Your task to perform on an android device: delete browsing data in the chrome app Image 0: 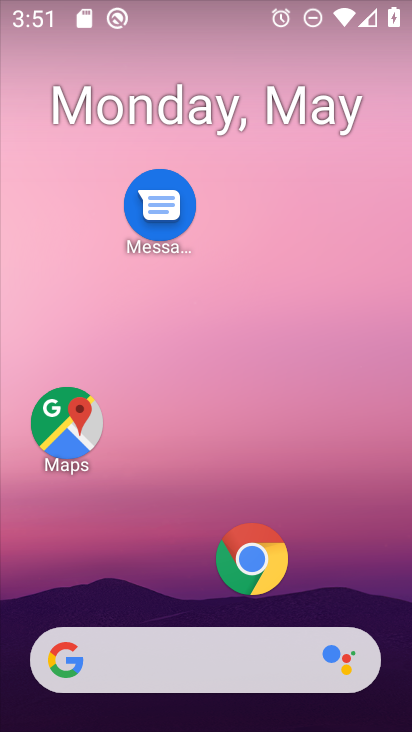
Step 0: drag from (197, 583) to (283, 73)
Your task to perform on an android device: delete browsing data in the chrome app Image 1: 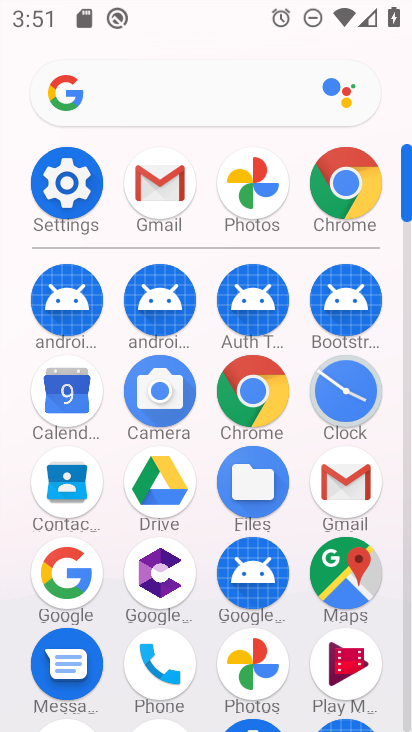
Step 1: drag from (207, 711) to (212, 270)
Your task to perform on an android device: delete browsing data in the chrome app Image 2: 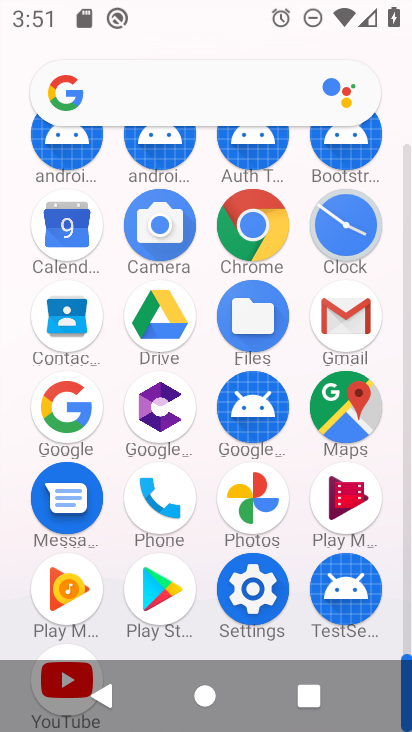
Step 2: click (259, 213)
Your task to perform on an android device: delete browsing data in the chrome app Image 3: 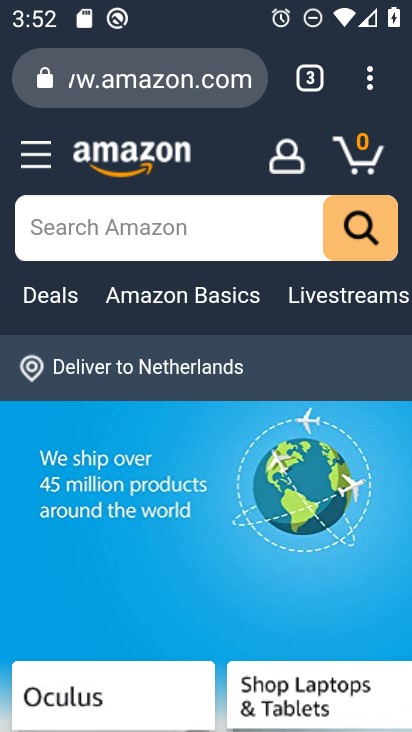
Step 3: drag from (242, 599) to (245, 323)
Your task to perform on an android device: delete browsing data in the chrome app Image 4: 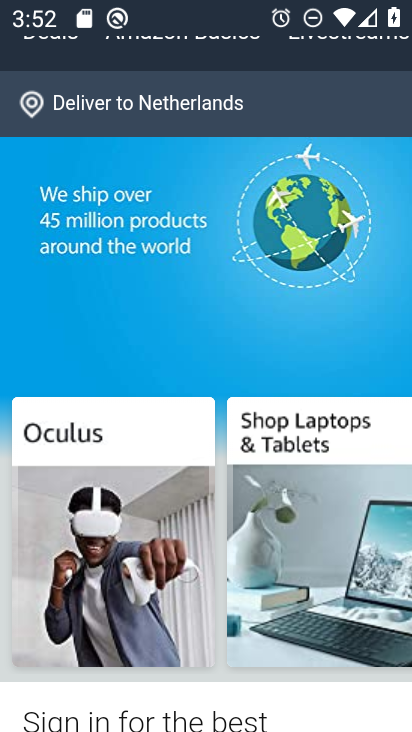
Step 4: drag from (253, 629) to (311, 284)
Your task to perform on an android device: delete browsing data in the chrome app Image 5: 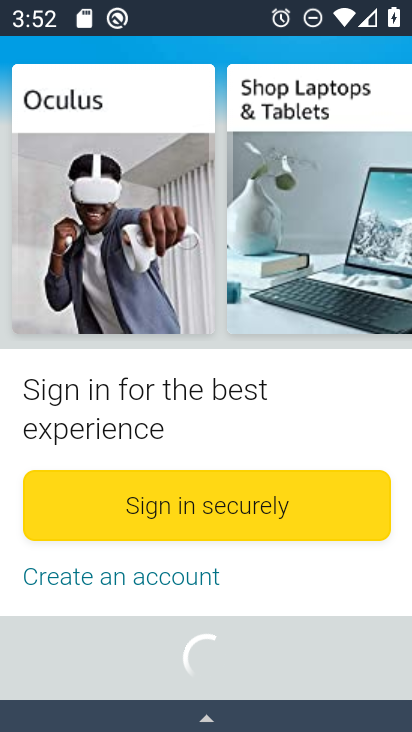
Step 5: drag from (235, 621) to (252, 178)
Your task to perform on an android device: delete browsing data in the chrome app Image 6: 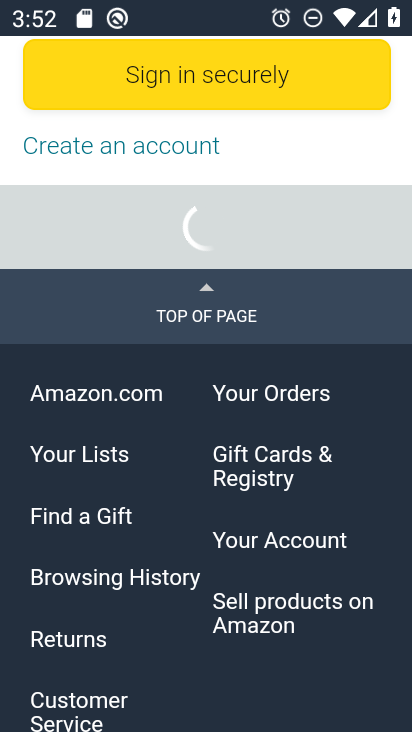
Step 6: drag from (333, 175) to (324, 689)
Your task to perform on an android device: delete browsing data in the chrome app Image 7: 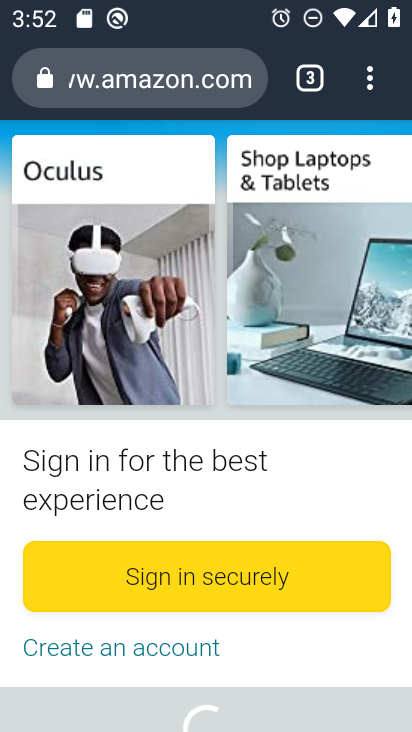
Step 7: drag from (269, 116) to (289, 654)
Your task to perform on an android device: delete browsing data in the chrome app Image 8: 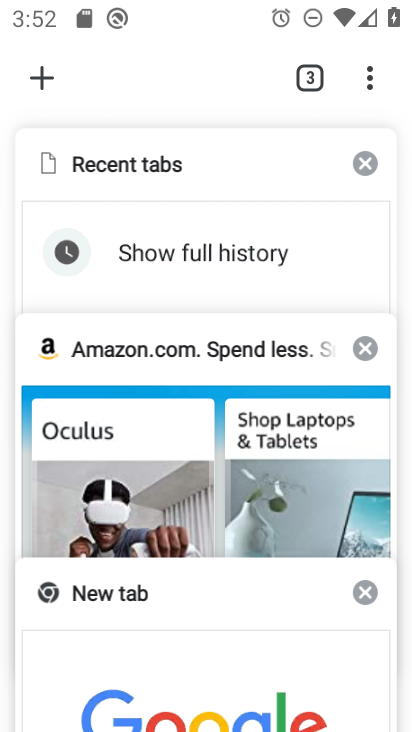
Step 8: drag from (359, 123) to (295, 393)
Your task to perform on an android device: delete browsing data in the chrome app Image 9: 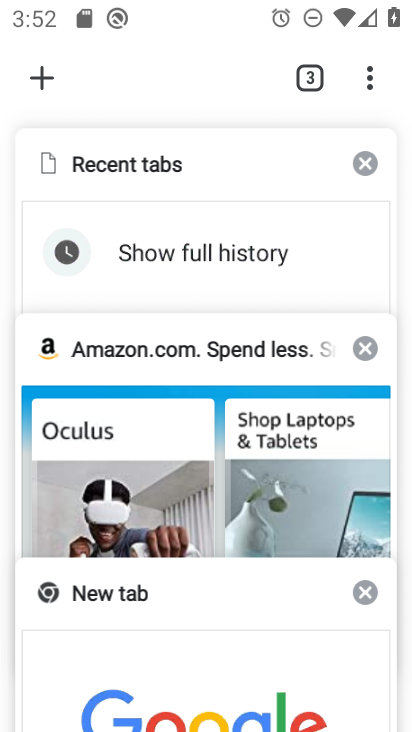
Step 9: click (242, 488)
Your task to perform on an android device: delete browsing data in the chrome app Image 10: 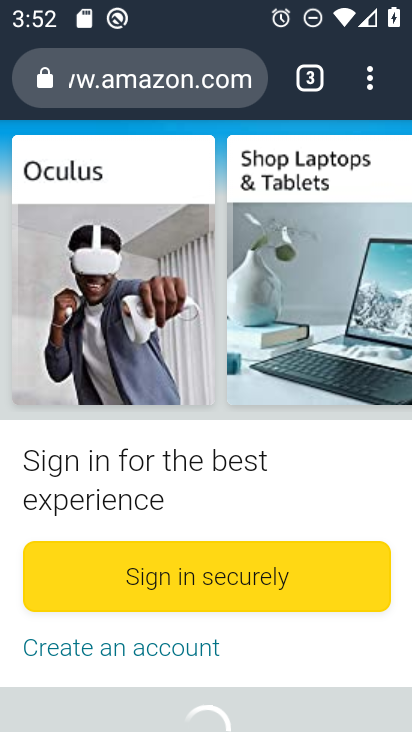
Step 10: click (366, 82)
Your task to perform on an android device: delete browsing data in the chrome app Image 11: 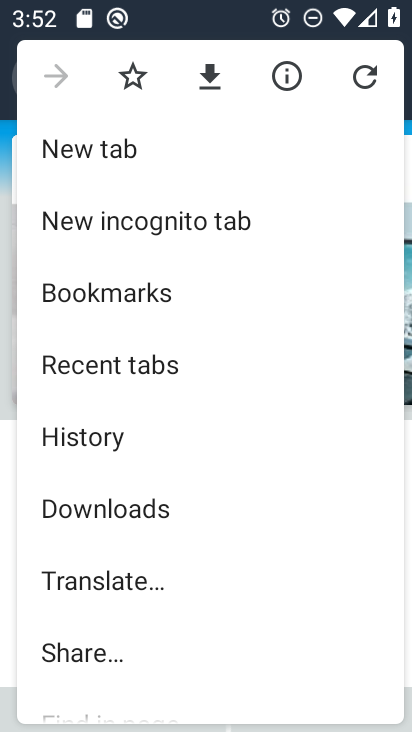
Step 11: click (111, 438)
Your task to perform on an android device: delete browsing data in the chrome app Image 12: 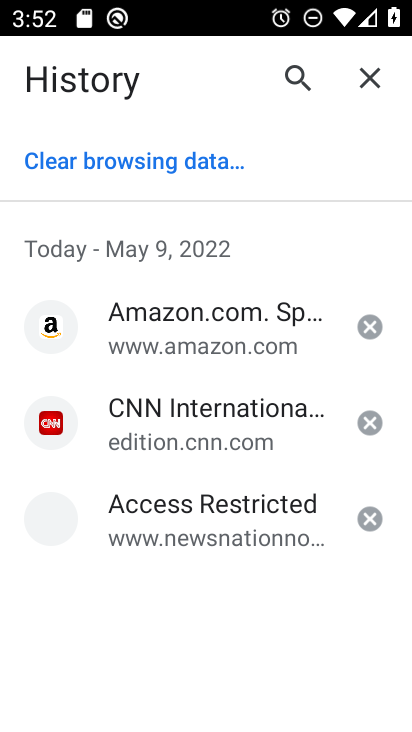
Step 12: drag from (198, 586) to (280, 285)
Your task to perform on an android device: delete browsing data in the chrome app Image 13: 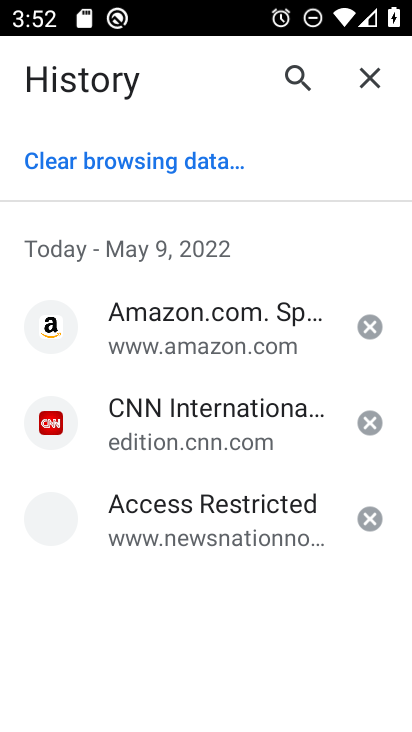
Step 13: click (122, 163)
Your task to perform on an android device: delete browsing data in the chrome app Image 14: 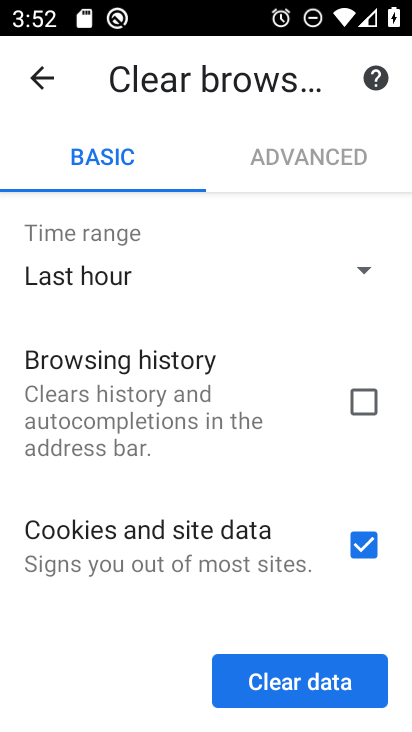
Step 14: click (367, 388)
Your task to perform on an android device: delete browsing data in the chrome app Image 15: 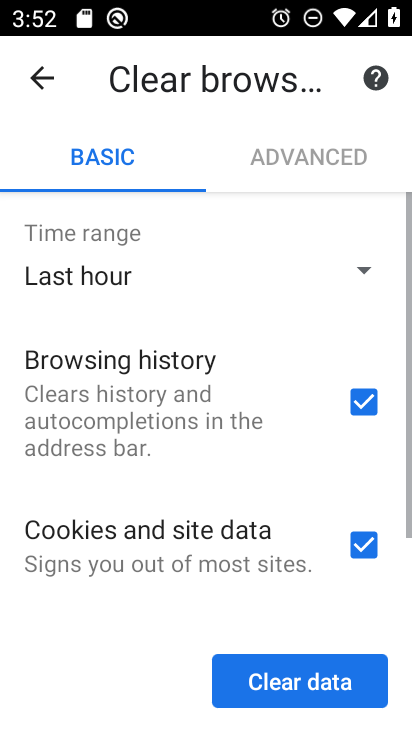
Step 15: click (288, 681)
Your task to perform on an android device: delete browsing data in the chrome app Image 16: 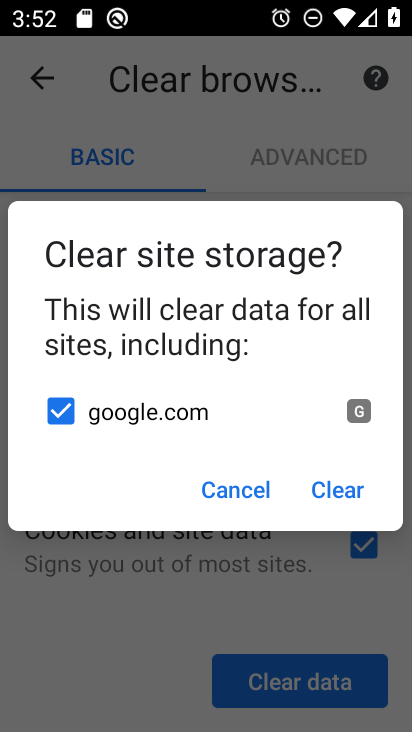
Step 16: click (325, 473)
Your task to perform on an android device: delete browsing data in the chrome app Image 17: 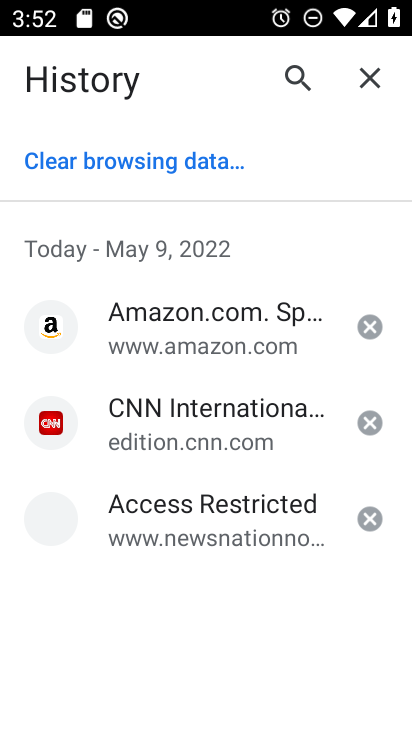
Step 17: task complete